Your task to perform on an android device: Open the calendar and show me this week's events? Image 0: 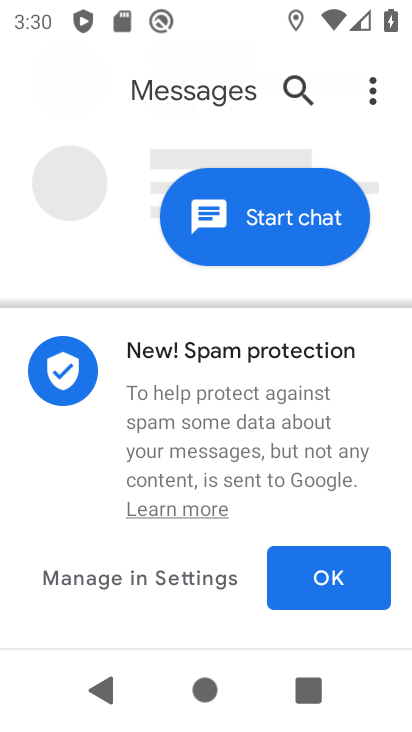
Step 0: press home button
Your task to perform on an android device: Open the calendar and show me this week's events? Image 1: 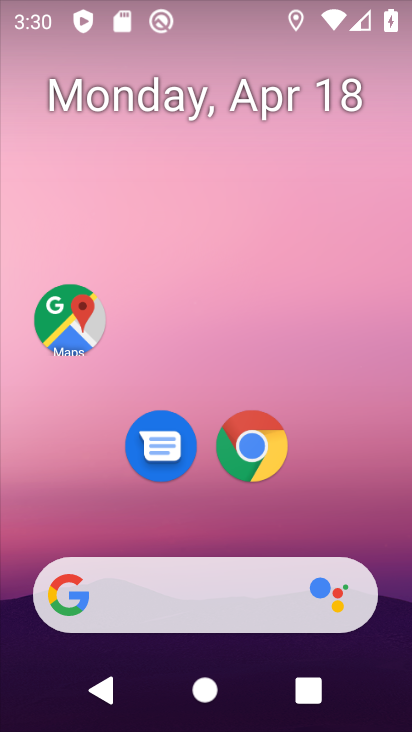
Step 1: drag from (342, 566) to (354, 138)
Your task to perform on an android device: Open the calendar and show me this week's events? Image 2: 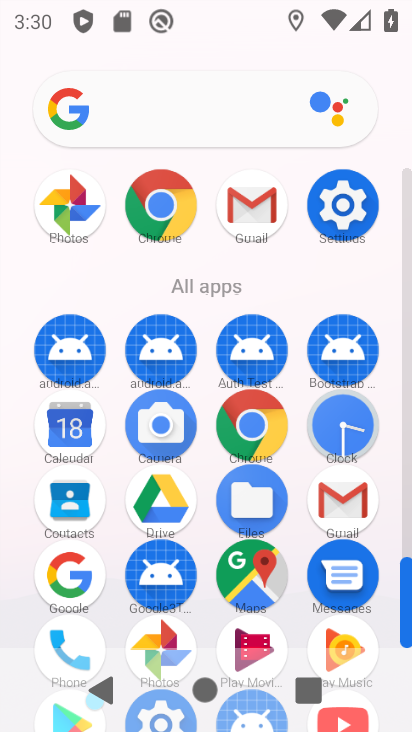
Step 2: click (82, 418)
Your task to perform on an android device: Open the calendar and show me this week's events? Image 3: 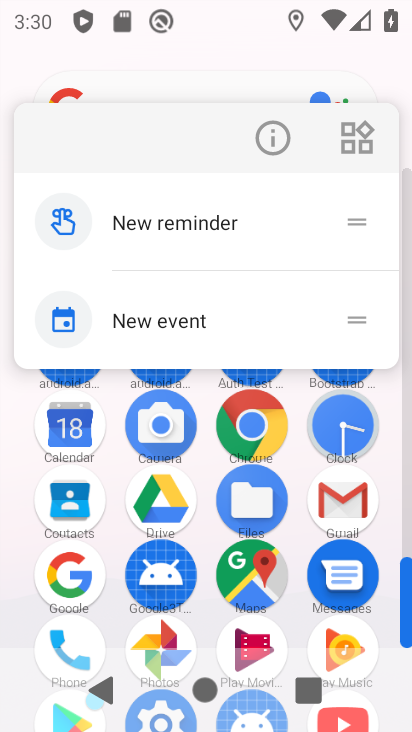
Step 3: click (85, 422)
Your task to perform on an android device: Open the calendar and show me this week's events? Image 4: 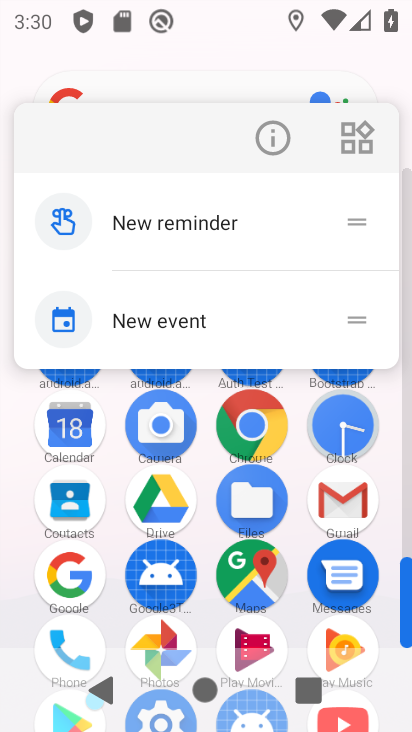
Step 4: click (93, 435)
Your task to perform on an android device: Open the calendar and show me this week's events? Image 5: 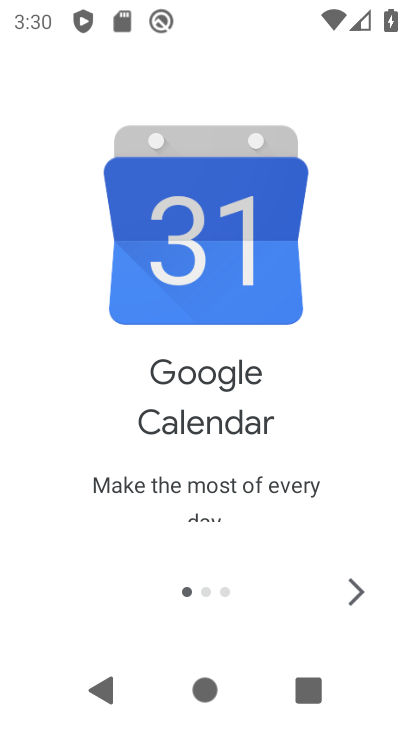
Step 5: click (352, 603)
Your task to perform on an android device: Open the calendar and show me this week's events? Image 6: 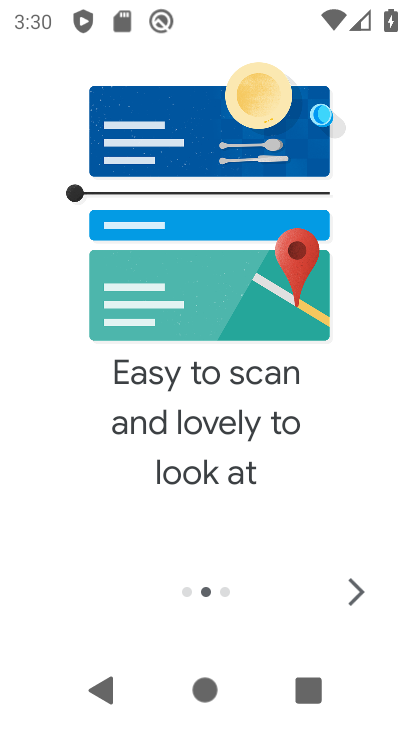
Step 6: click (353, 603)
Your task to perform on an android device: Open the calendar and show me this week's events? Image 7: 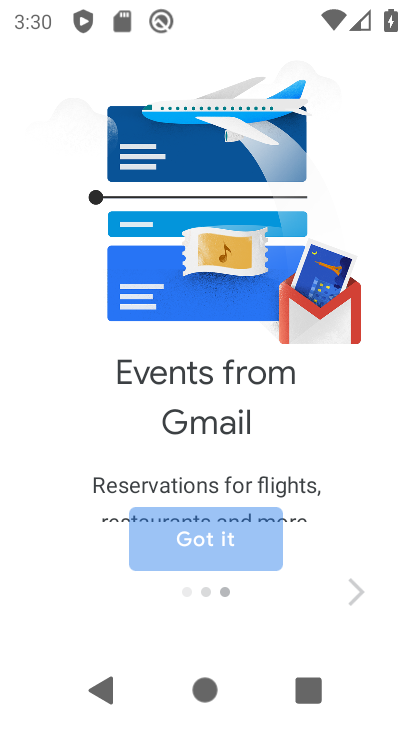
Step 7: click (353, 603)
Your task to perform on an android device: Open the calendar and show me this week's events? Image 8: 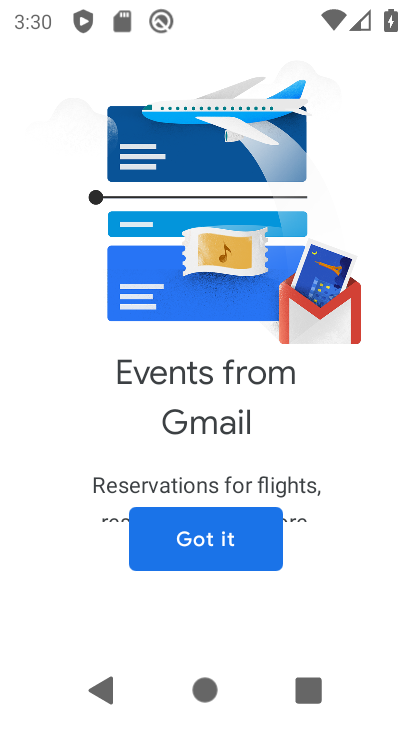
Step 8: click (230, 562)
Your task to perform on an android device: Open the calendar and show me this week's events? Image 9: 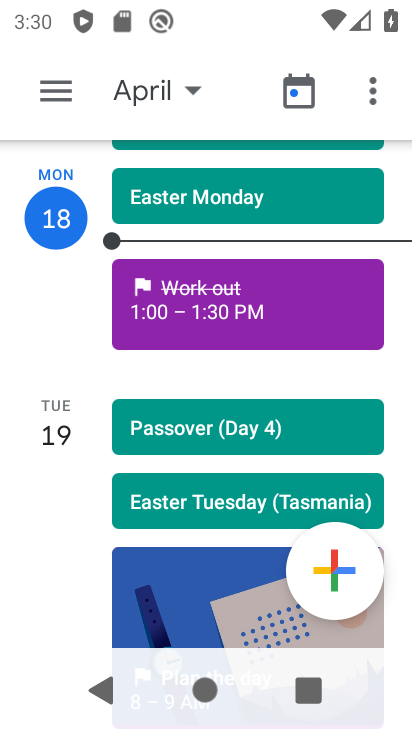
Step 9: click (63, 75)
Your task to perform on an android device: Open the calendar and show me this week's events? Image 10: 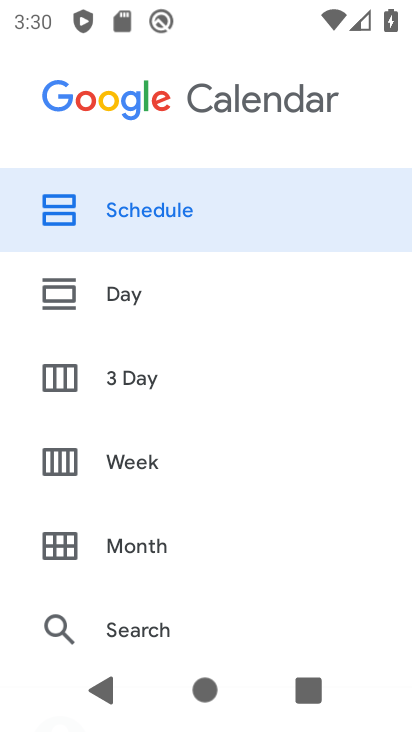
Step 10: click (165, 463)
Your task to perform on an android device: Open the calendar and show me this week's events? Image 11: 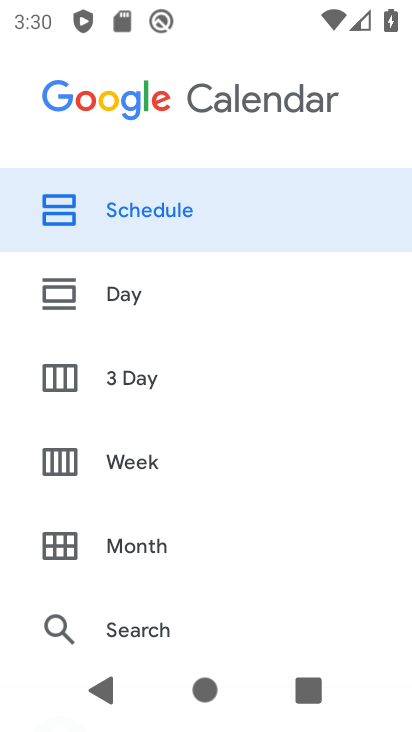
Step 11: click (166, 461)
Your task to perform on an android device: Open the calendar and show me this week's events? Image 12: 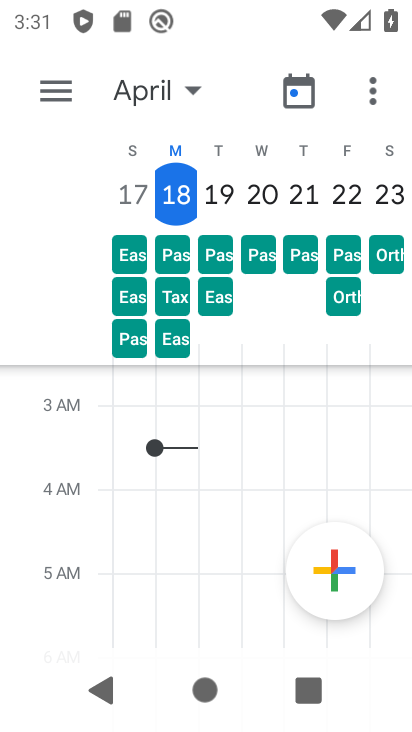
Step 12: task complete